Your task to perform on an android device: star an email in the gmail app Image 0: 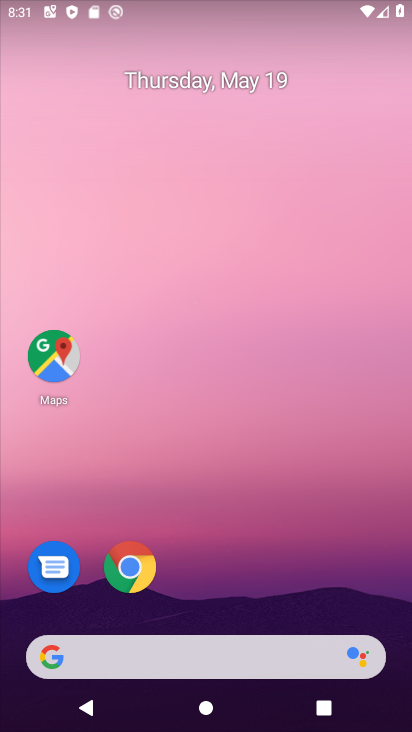
Step 0: drag from (205, 595) to (307, 9)
Your task to perform on an android device: star an email in the gmail app Image 1: 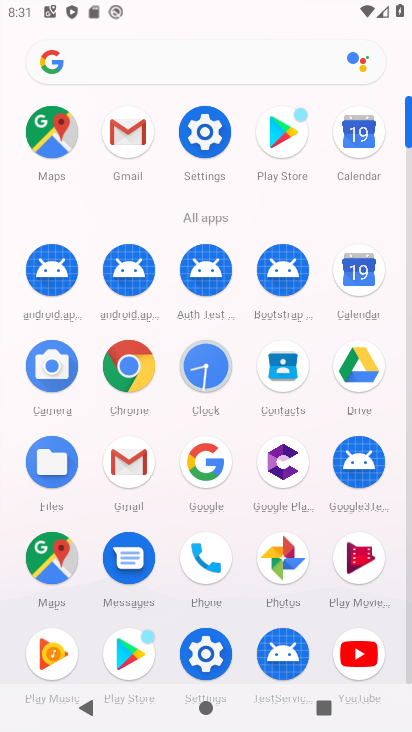
Step 1: click (138, 477)
Your task to perform on an android device: star an email in the gmail app Image 2: 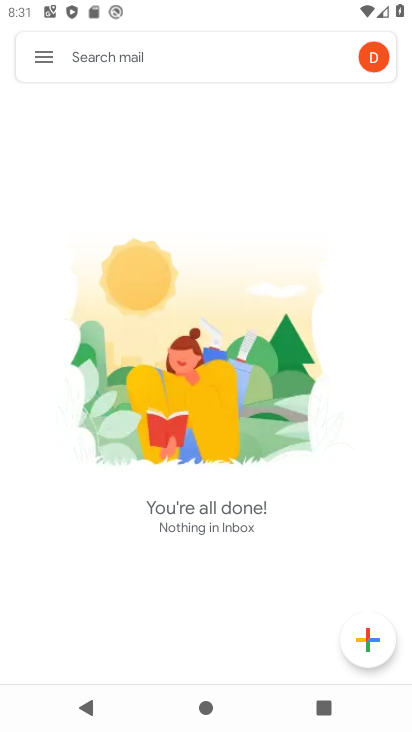
Step 2: click (30, 52)
Your task to perform on an android device: star an email in the gmail app Image 3: 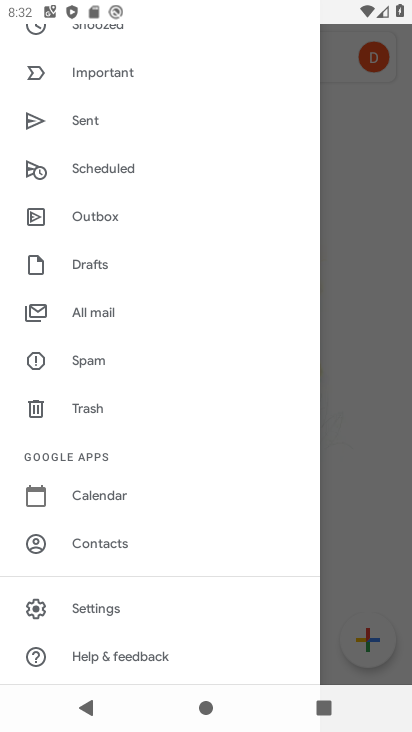
Step 3: click (110, 315)
Your task to perform on an android device: star an email in the gmail app Image 4: 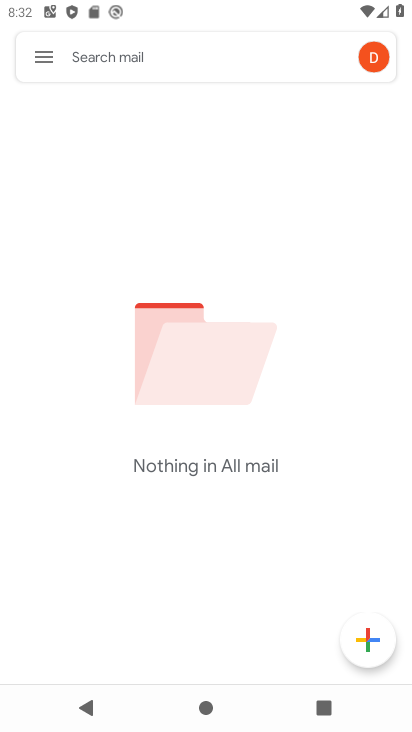
Step 4: task complete